Your task to perform on an android device: Turn on the flashlight Image 0: 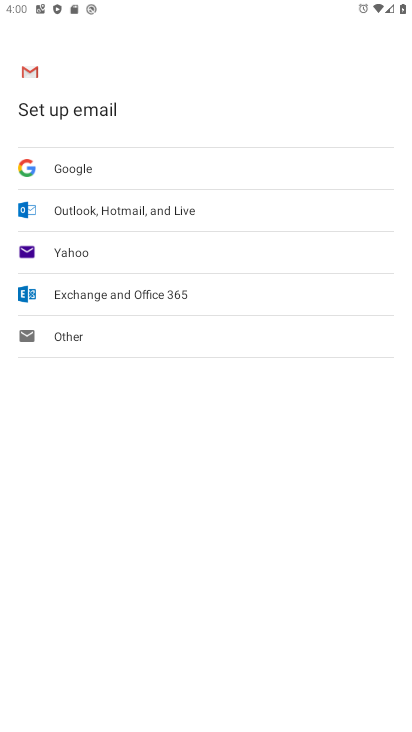
Step 0: press home button
Your task to perform on an android device: Turn on the flashlight Image 1: 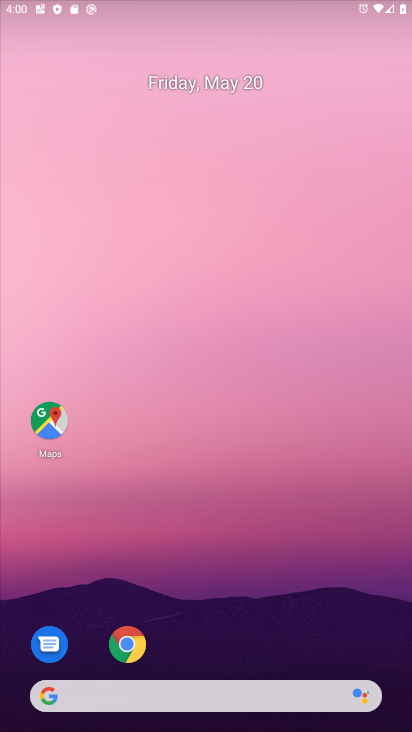
Step 1: drag from (227, 562) to (257, 150)
Your task to perform on an android device: Turn on the flashlight Image 2: 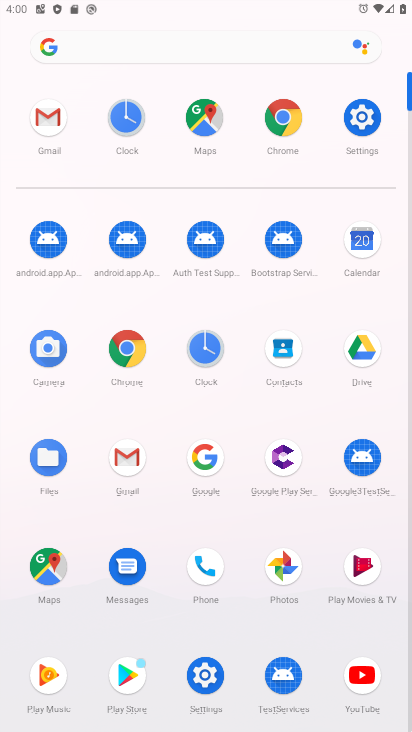
Step 2: click (348, 142)
Your task to perform on an android device: Turn on the flashlight Image 3: 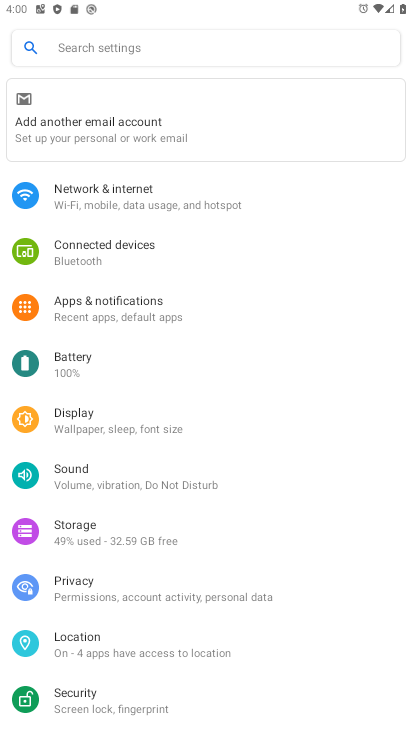
Step 3: click (168, 415)
Your task to perform on an android device: Turn on the flashlight Image 4: 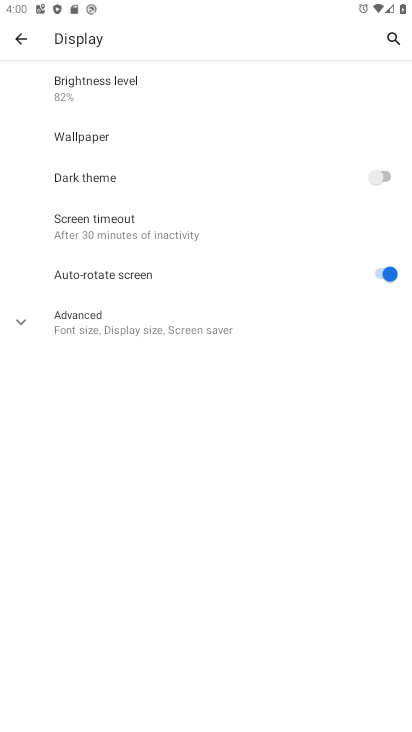
Step 4: task complete